Your task to perform on an android device: toggle javascript in the chrome app Image 0: 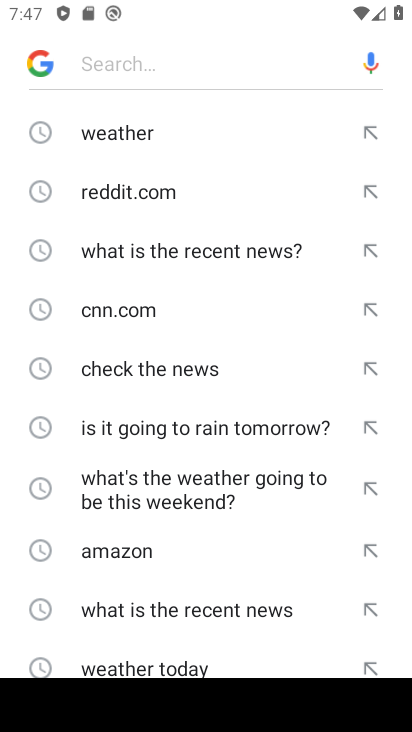
Step 0: press home button
Your task to perform on an android device: toggle javascript in the chrome app Image 1: 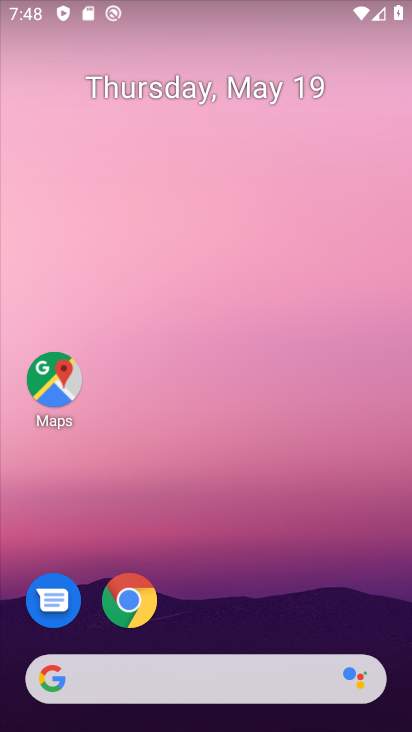
Step 1: click (123, 600)
Your task to perform on an android device: toggle javascript in the chrome app Image 2: 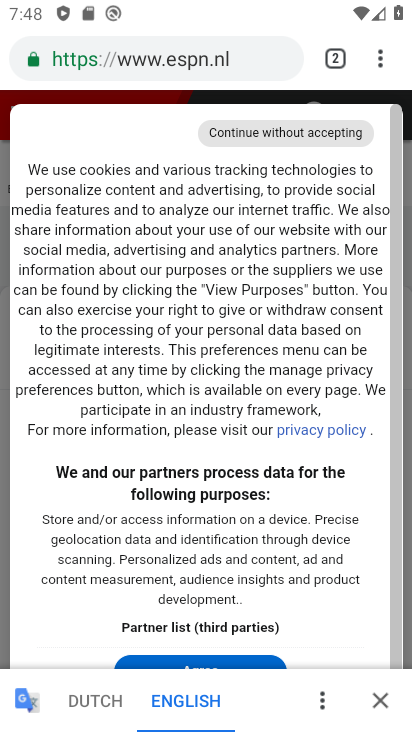
Step 2: click (382, 60)
Your task to perform on an android device: toggle javascript in the chrome app Image 3: 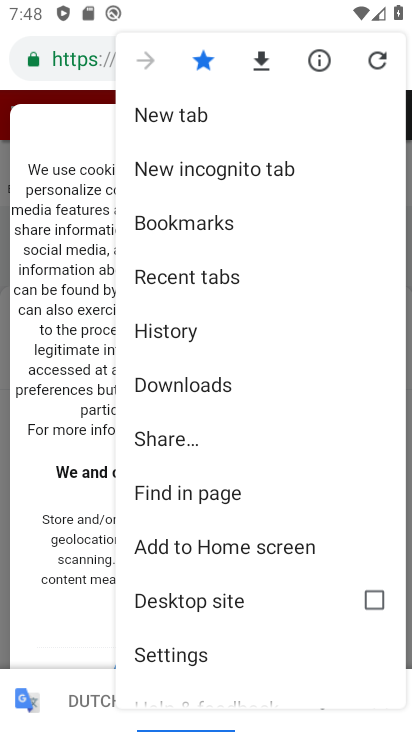
Step 3: click (174, 655)
Your task to perform on an android device: toggle javascript in the chrome app Image 4: 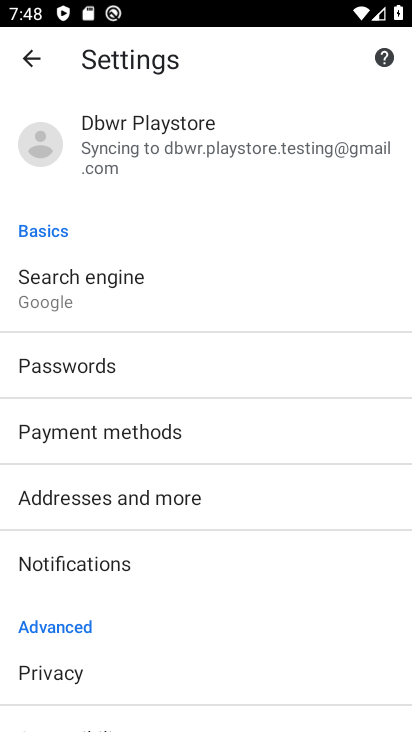
Step 4: drag from (174, 655) to (206, 256)
Your task to perform on an android device: toggle javascript in the chrome app Image 5: 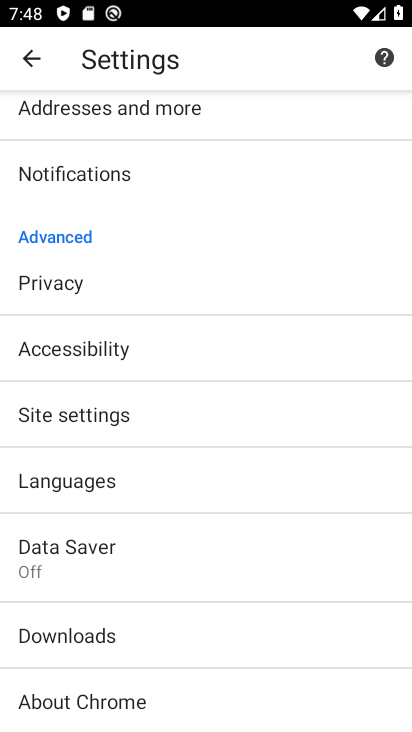
Step 5: click (115, 423)
Your task to perform on an android device: toggle javascript in the chrome app Image 6: 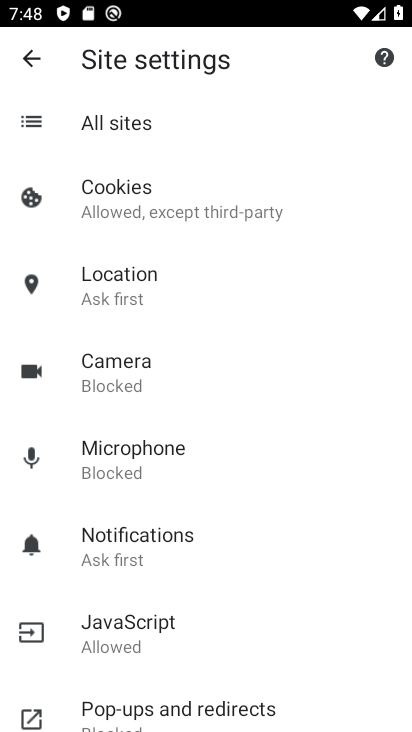
Step 6: click (108, 636)
Your task to perform on an android device: toggle javascript in the chrome app Image 7: 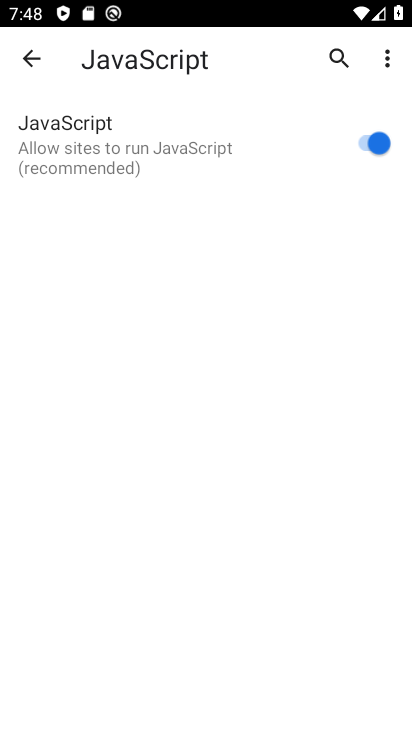
Step 7: click (382, 150)
Your task to perform on an android device: toggle javascript in the chrome app Image 8: 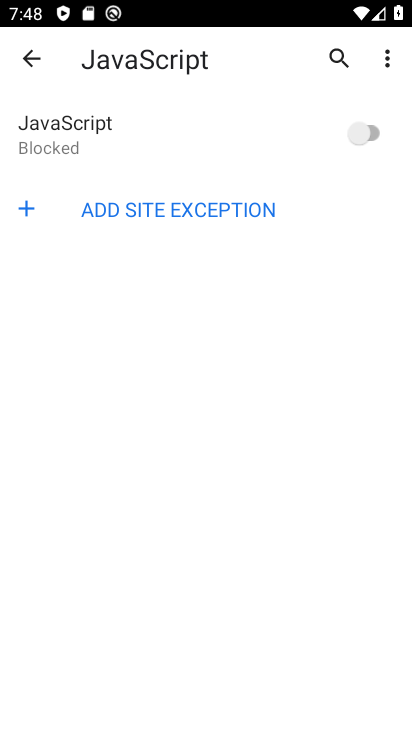
Step 8: task complete